Your task to perform on an android device: star an email in the gmail app Image 0: 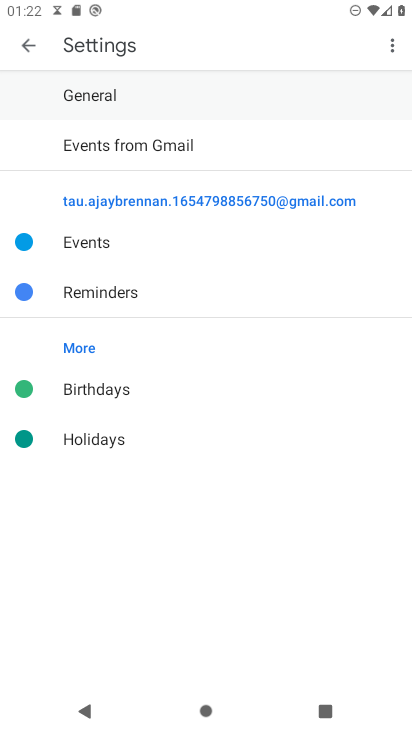
Step 0: press home button
Your task to perform on an android device: star an email in the gmail app Image 1: 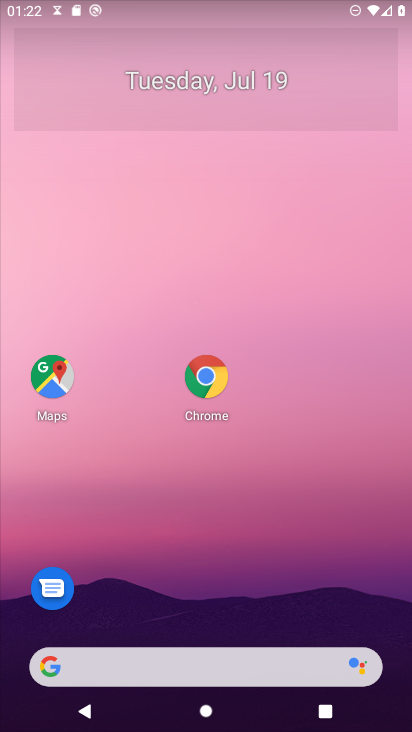
Step 1: drag from (330, 529) to (325, 60)
Your task to perform on an android device: star an email in the gmail app Image 2: 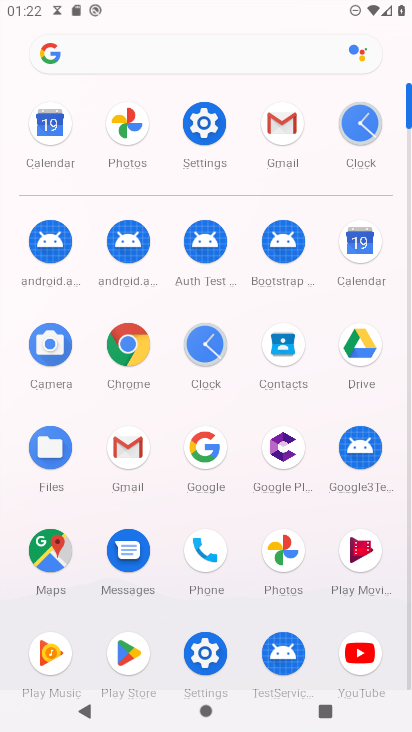
Step 2: click (288, 121)
Your task to perform on an android device: star an email in the gmail app Image 3: 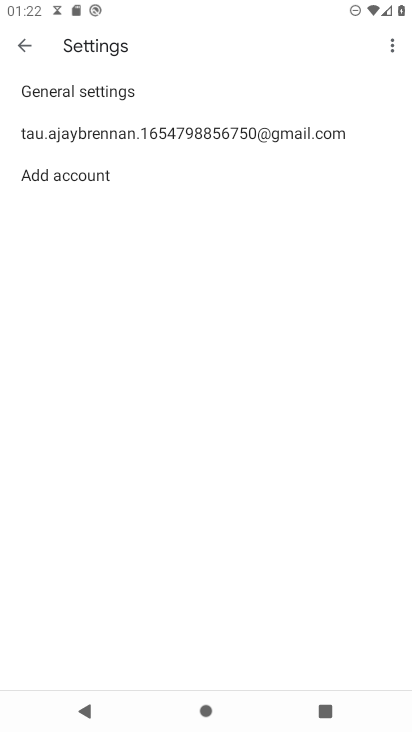
Step 3: click (18, 46)
Your task to perform on an android device: star an email in the gmail app Image 4: 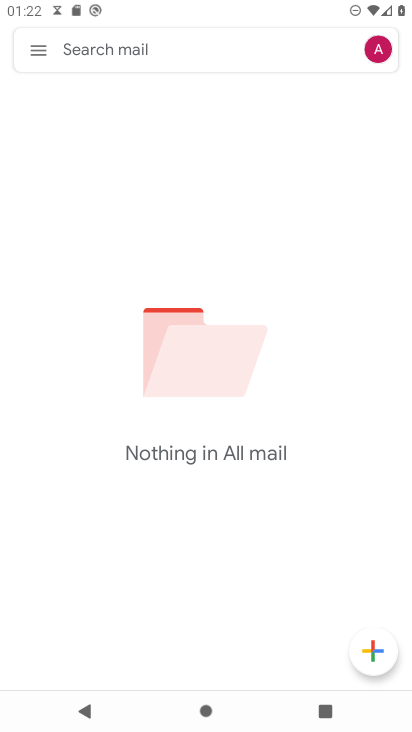
Step 4: click (35, 54)
Your task to perform on an android device: star an email in the gmail app Image 5: 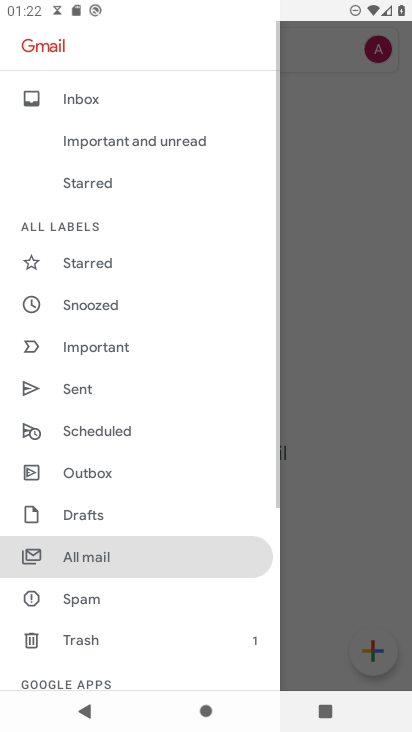
Step 5: click (88, 565)
Your task to perform on an android device: star an email in the gmail app Image 6: 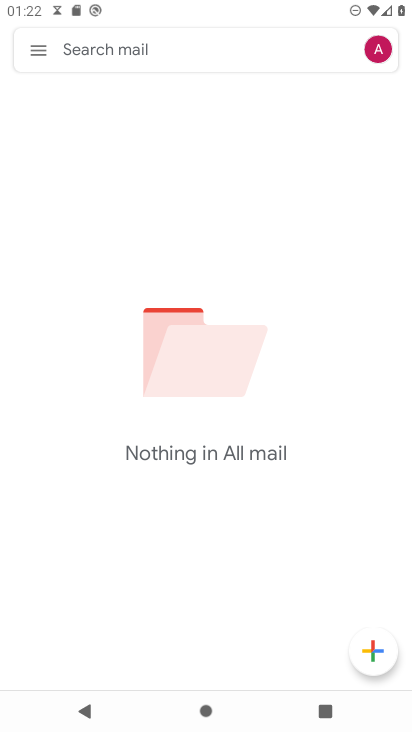
Step 6: task complete